Your task to perform on an android device: delete browsing data in the chrome app Image 0: 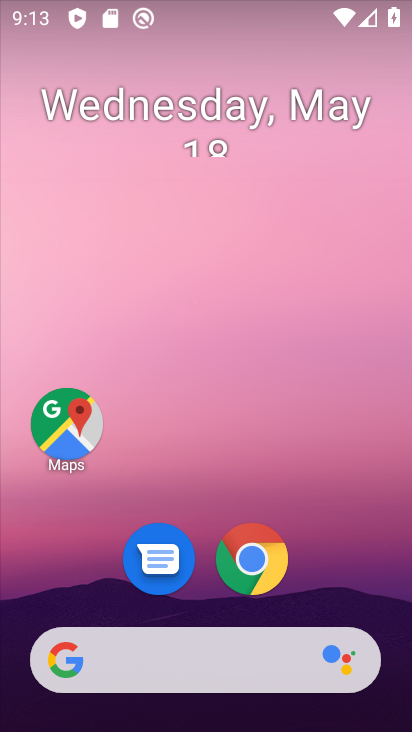
Step 0: drag from (319, 545) to (278, 46)
Your task to perform on an android device: delete browsing data in the chrome app Image 1: 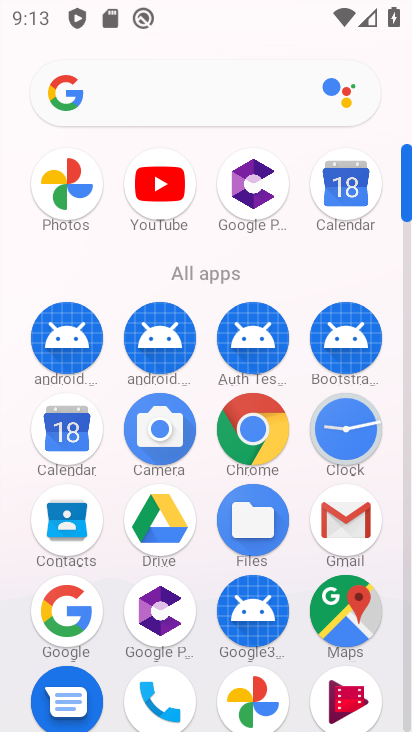
Step 1: drag from (4, 567) to (28, 254)
Your task to perform on an android device: delete browsing data in the chrome app Image 2: 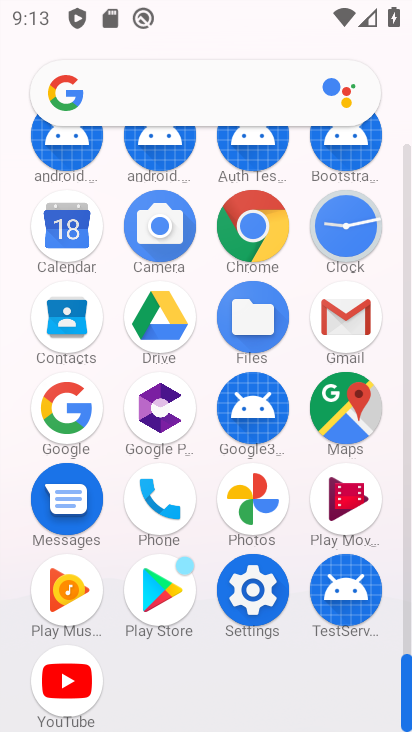
Step 2: click (252, 221)
Your task to perform on an android device: delete browsing data in the chrome app Image 3: 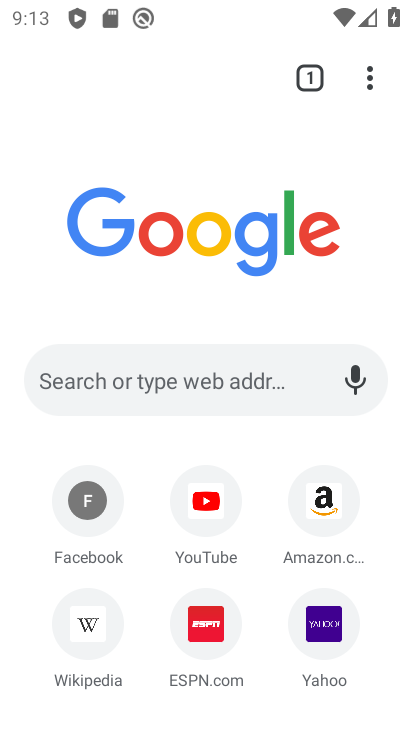
Step 3: drag from (367, 81) to (113, 642)
Your task to perform on an android device: delete browsing data in the chrome app Image 4: 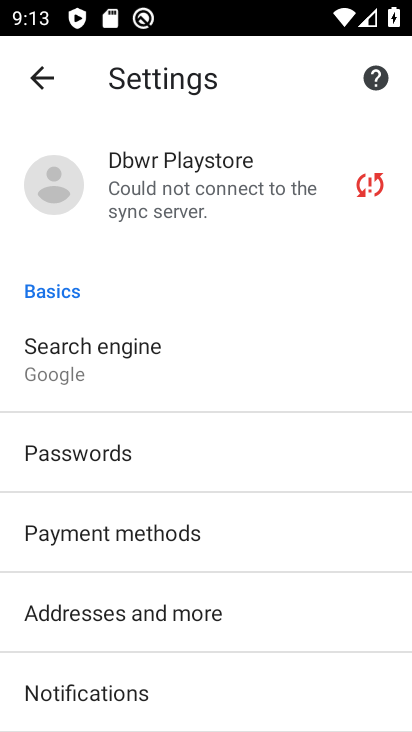
Step 4: drag from (233, 552) to (247, 214)
Your task to perform on an android device: delete browsing data in the chrome app Image 5: 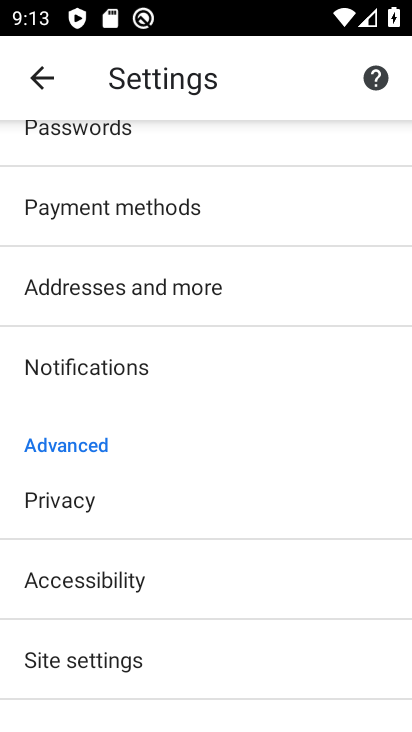
Step 5: drag from (206, 588) to (222, 168)
Your task to perform on an android device: delete browsing data in the chrome app Image 6: 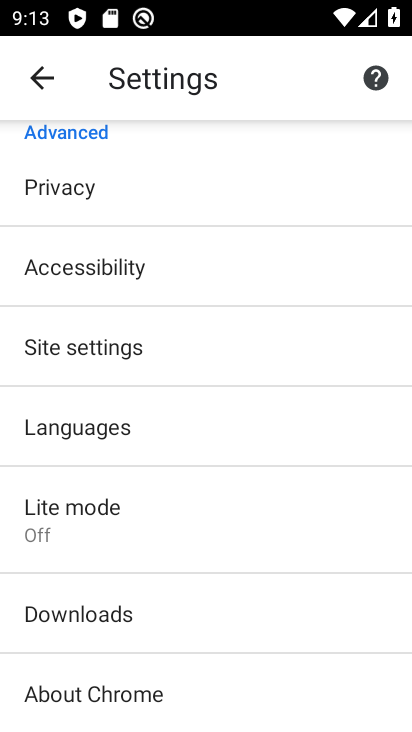
Step 6: drag from (195, 617) to (213, 195)
Your task to perform on an android device: delete browsing data in the chrome app Image 7: 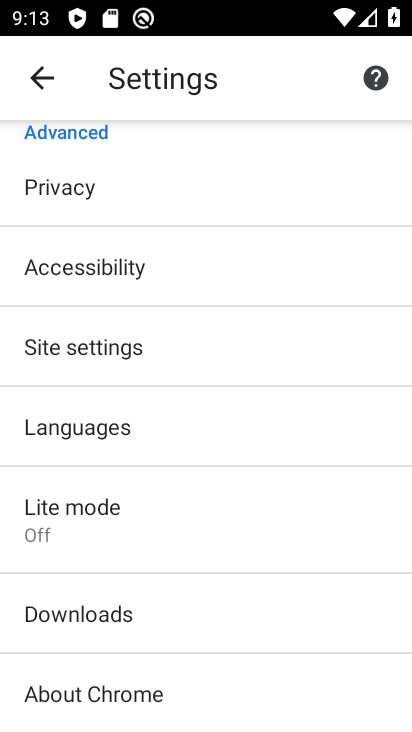
Step 7: drag from (215, 278) to (181, 555)
Your task to perform on an android device: delete browsing data in the chrome app Image 8: 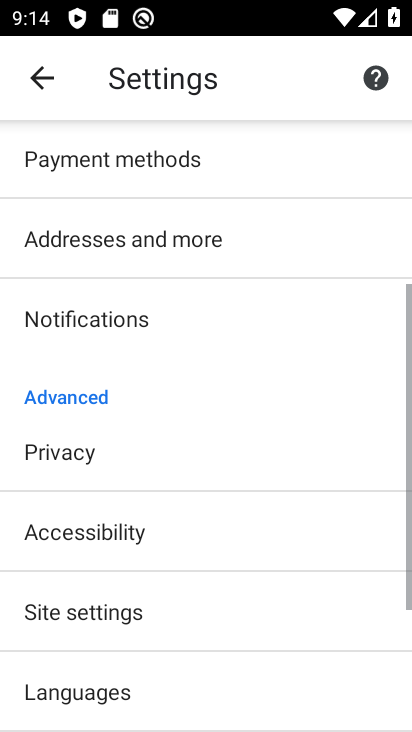
Step 8: click (38, 75)
Your task to perform on an android device: delete browsing data in the chrome app Image 9: 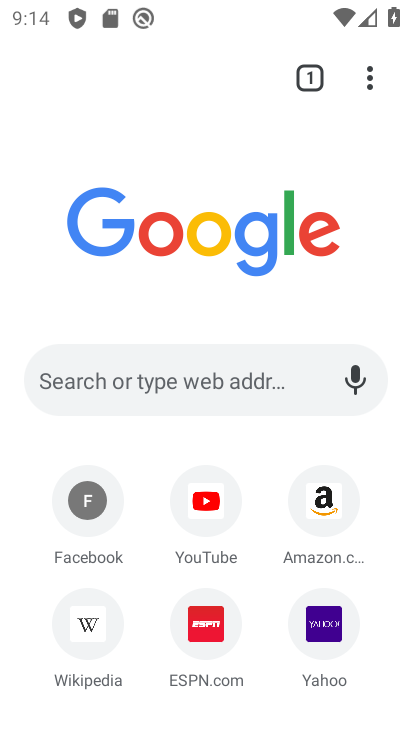
Step 9: task complete